Your task to perform on an android device: clear all cookies in the chrome app Image 0: 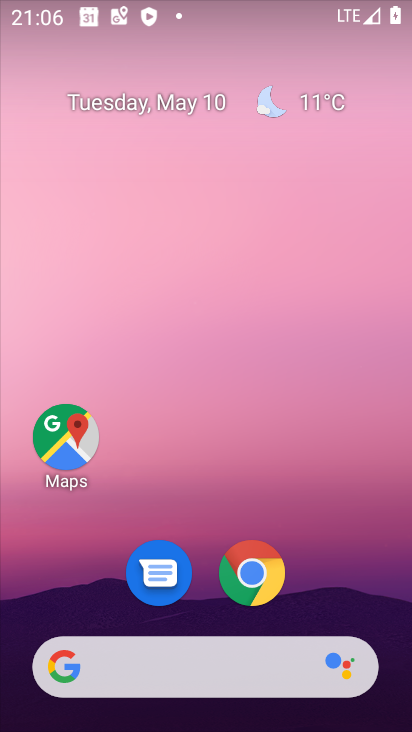
Step 0: click (259, 586)
Your task to perform on an android device: clear all cookies in the chrome app Image 1: 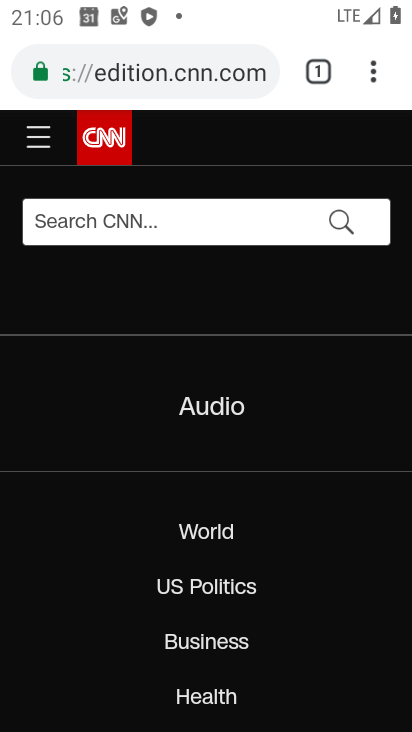
Step 1: drag from (371, 77) to (157, 561)
Your task to perform on an android device: clear all cookies in the chrome app Image 2: 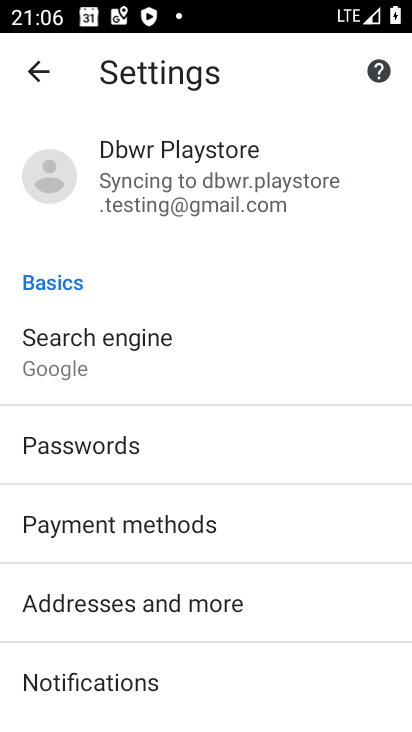
Step 2: drag from (289, 548) to (278, 201)
Your task to perform on an android device: clear all cookies in the chrome app Image 3: 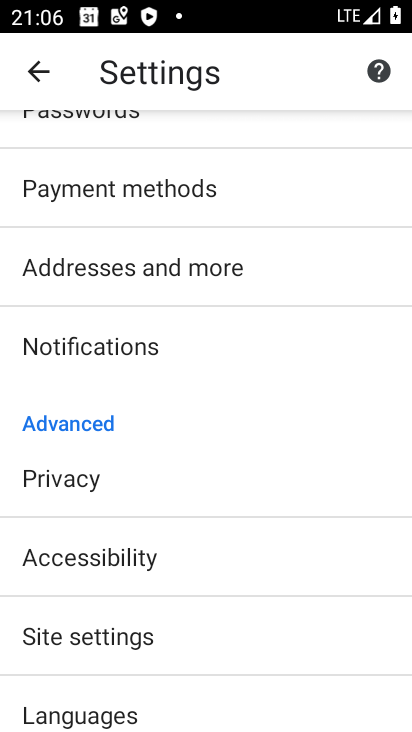
Step 3: click (84, 488)
Your task to perform on an android device: clear all cookies in the chrome app Image 4: 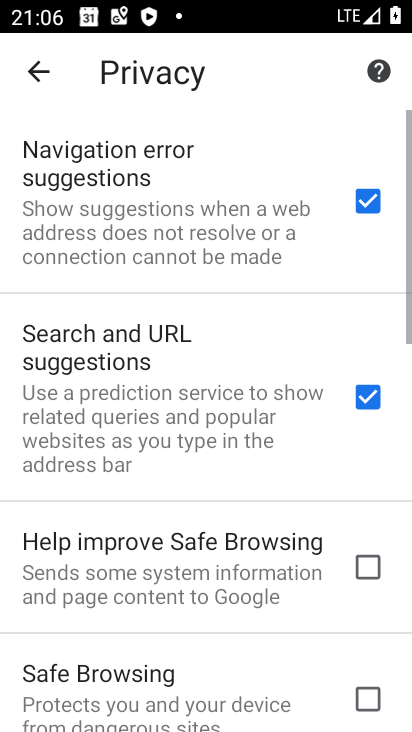
Step 4: drag from (172, 593) to (191, 182)
Your task to perform on an android device: clear all cookies in the chrome app Image 5: 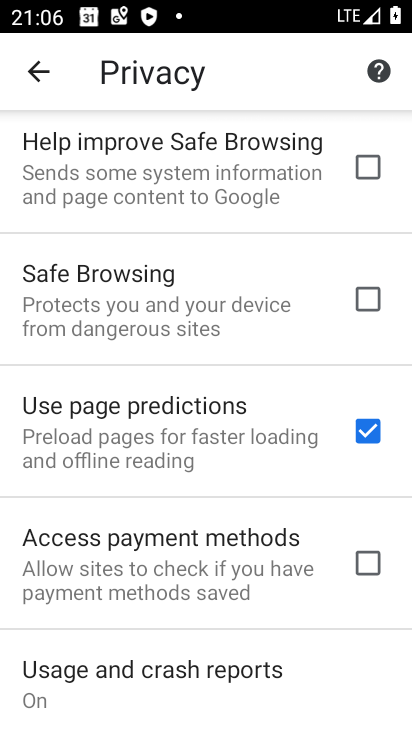
Step 5: drag from (189, 590) to (186, 150)
Your task to perform on an android device: clear all cookies in the chrome app Image 6: 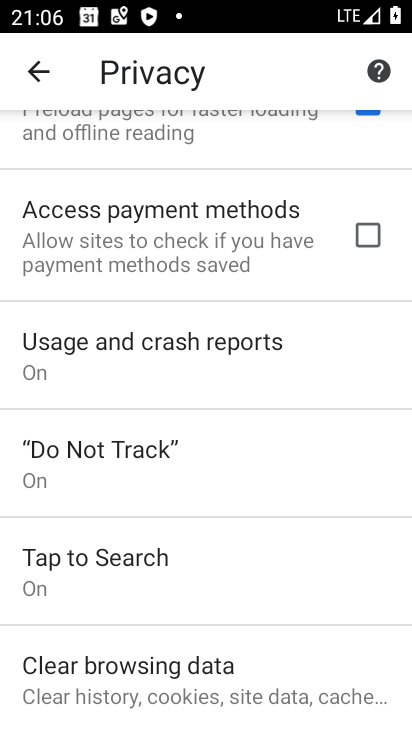
Step 6: drag from (117, 588) to (134, 284)
Your task to perform on an android device: clear all cookies in the chrome app Image 7: 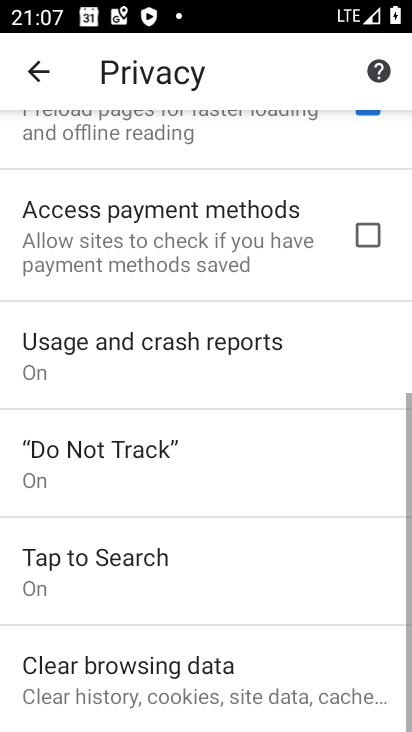
Step 7: click (133, 669)
Your task to perform on an android device: clear all cookies in the chrome app Image 8: 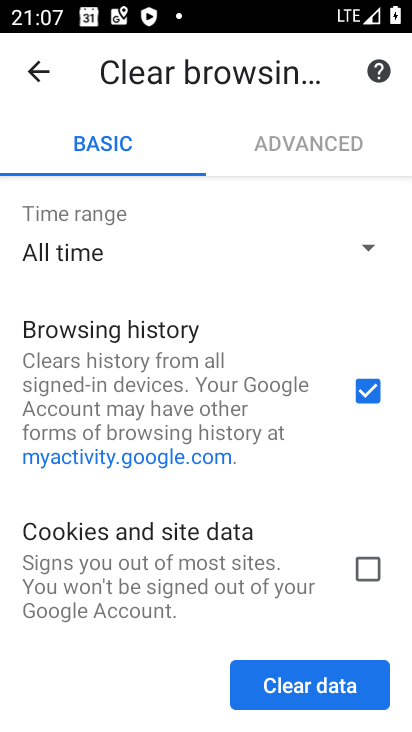
Step 8: click (356, 388)
Your task to perform on an android device: clear all cookies in the chrome app Image 9: 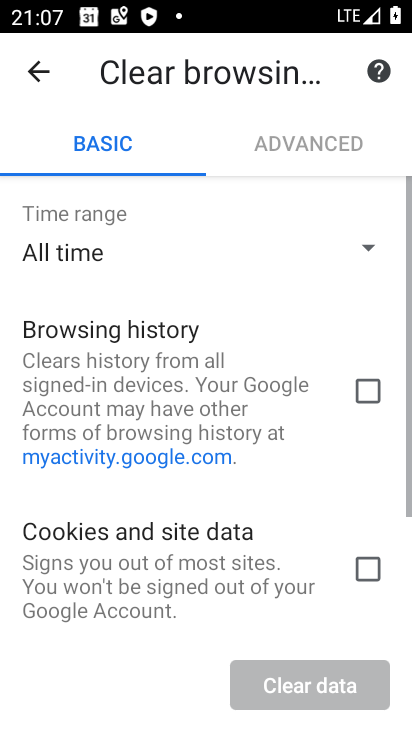
Step 9: click (367, 563)
Your task to perform on an android device: clear all cookies in the chrome app Image 10: 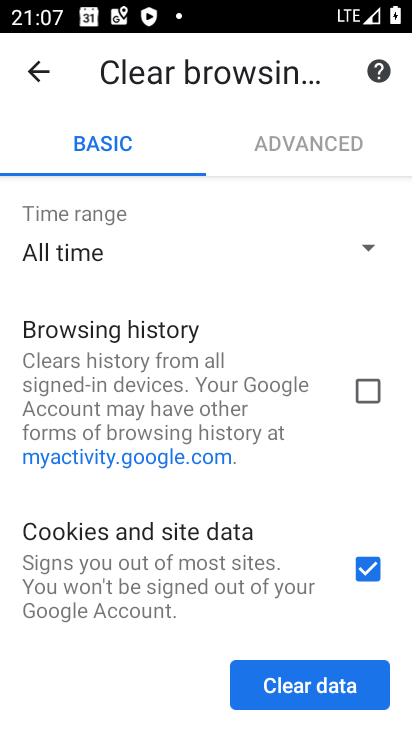
Step 10: drag from (164, 557) to (159, 260)
Your task to perform on an android device: clear all cookies in the chrome app Image 11: 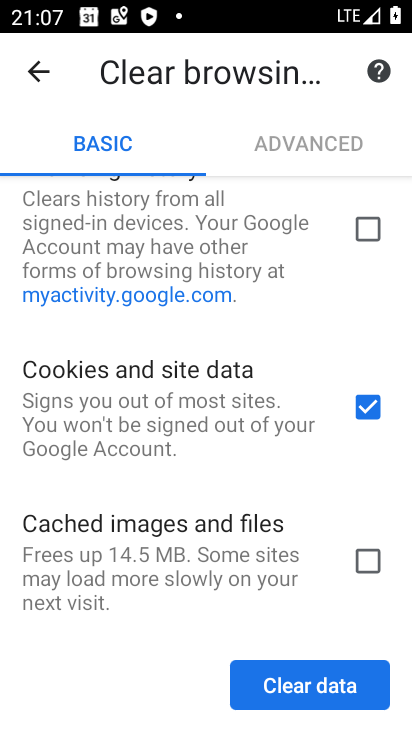
Step 11: click (282, 687)
Your task to perform on an android device: clear all cookies in the chrome app Image 12: 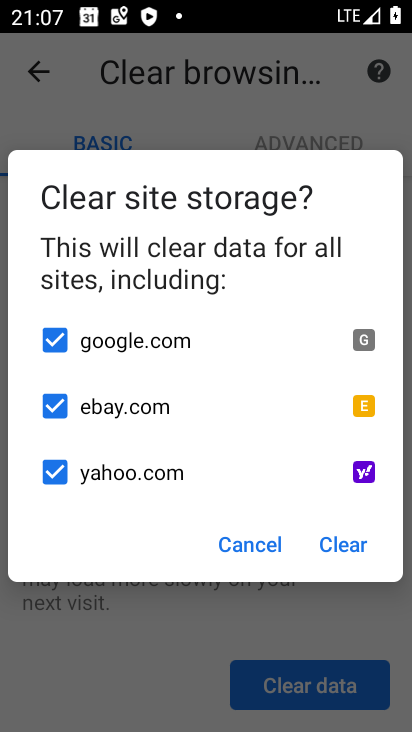
Step 12: click (346, 550)
Your task to perform on an android device: clear all cookies in the chrome app Image 13: 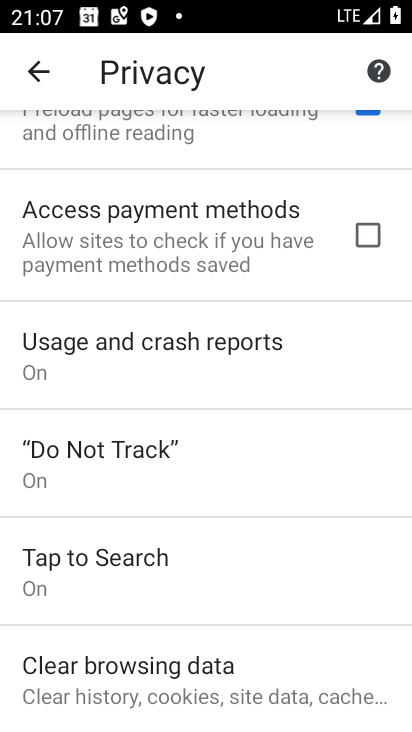
Step 13: task complete